Your task to perform on an android device: see creations saved in the google photos Image 0: 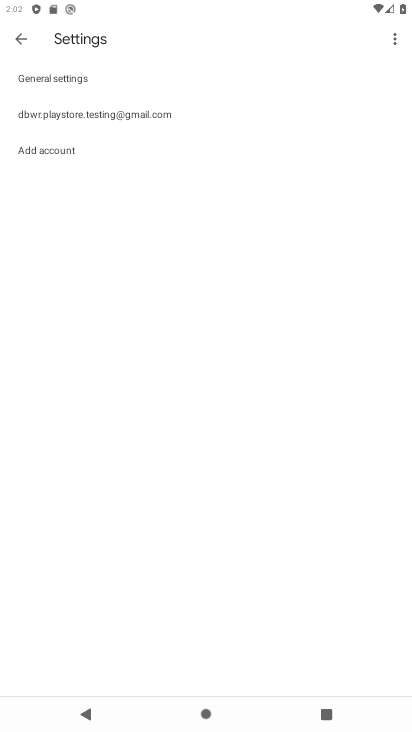
Step 0: press home button
Your task to perform on an android device: see creations saved in the google photos Image 1: 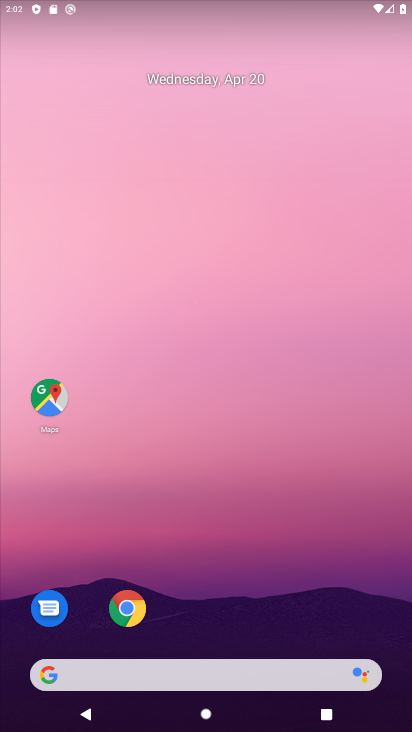
Step 1: drag from (363, 598) to (385, 127)
Your task to perform on an android device: see creations saved in the google photos Image 2: 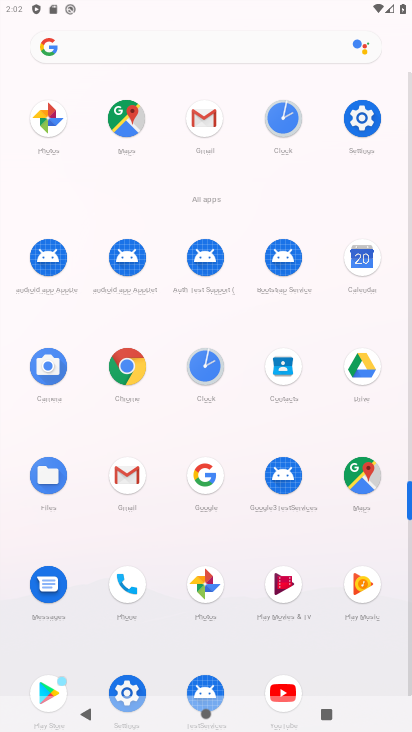
Step 2: click (212, 595)
Your task to perform on an android device: see creations saved in the google photos Image 3: 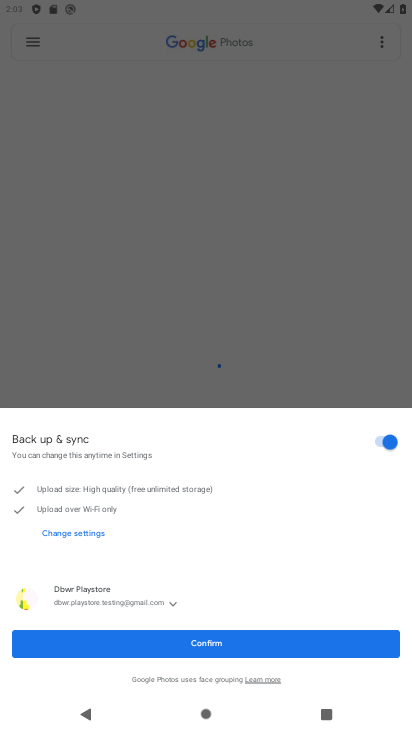
Step 3: task complete